Your task to perform on an android device: Open wifi settings Image 0: 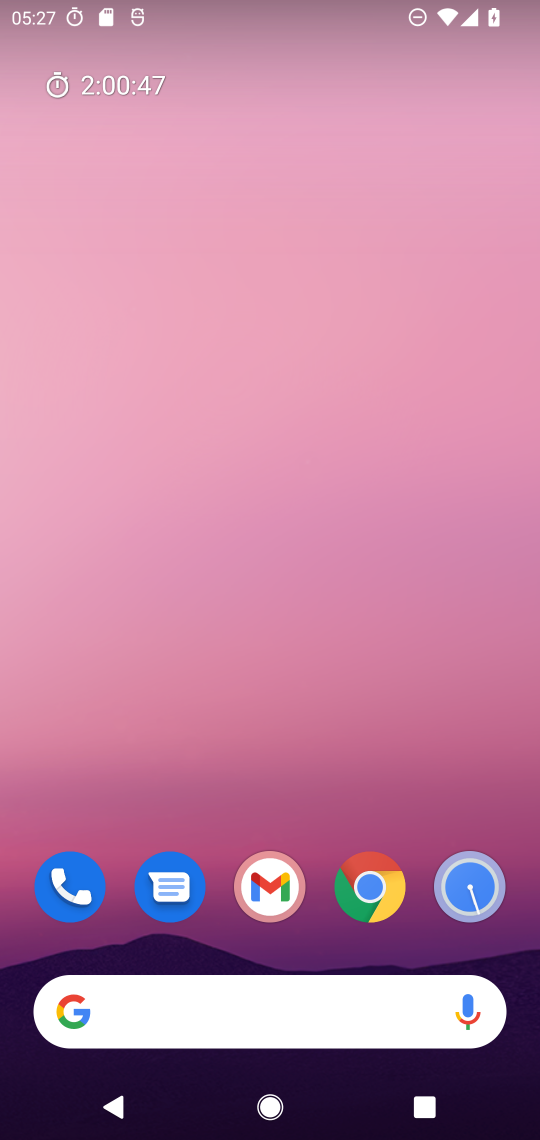
Step 0: press home button
Your task to perform on an android device: Open wifi settings Image 1: 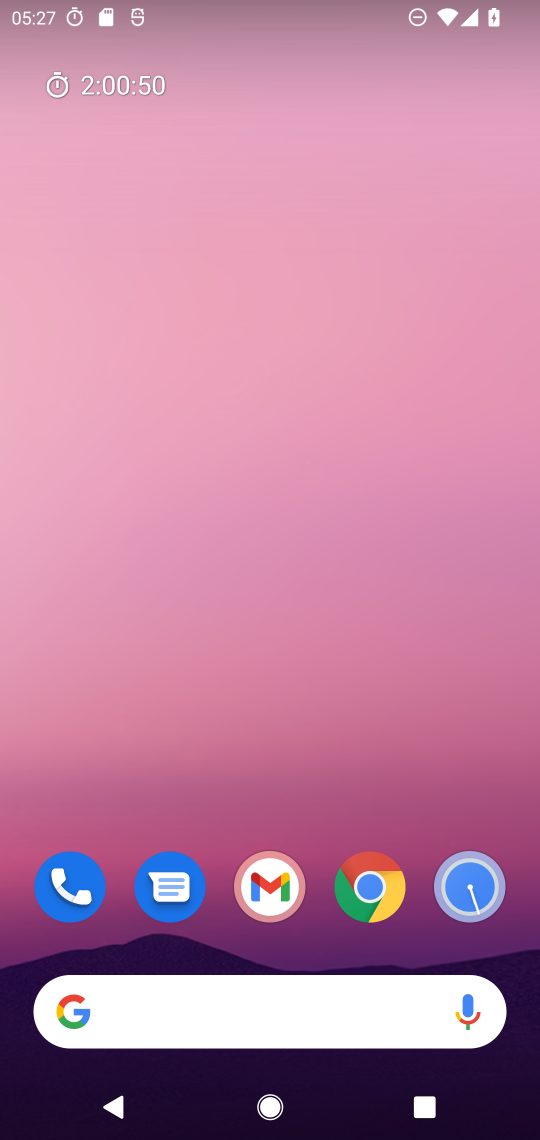
Step 1: drag from (414, 754) to (426, 228)
Your task to perform on an android device: Open wifi settings Image 2: 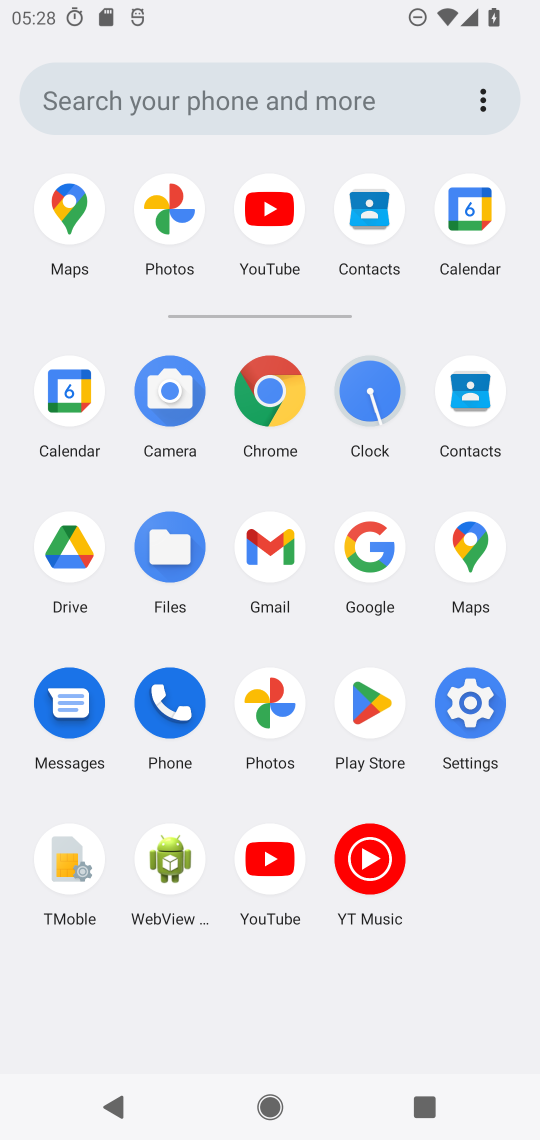
Step 2: click (466, 707)
Your task to perform on an android device: Open wifi settings Image 3: 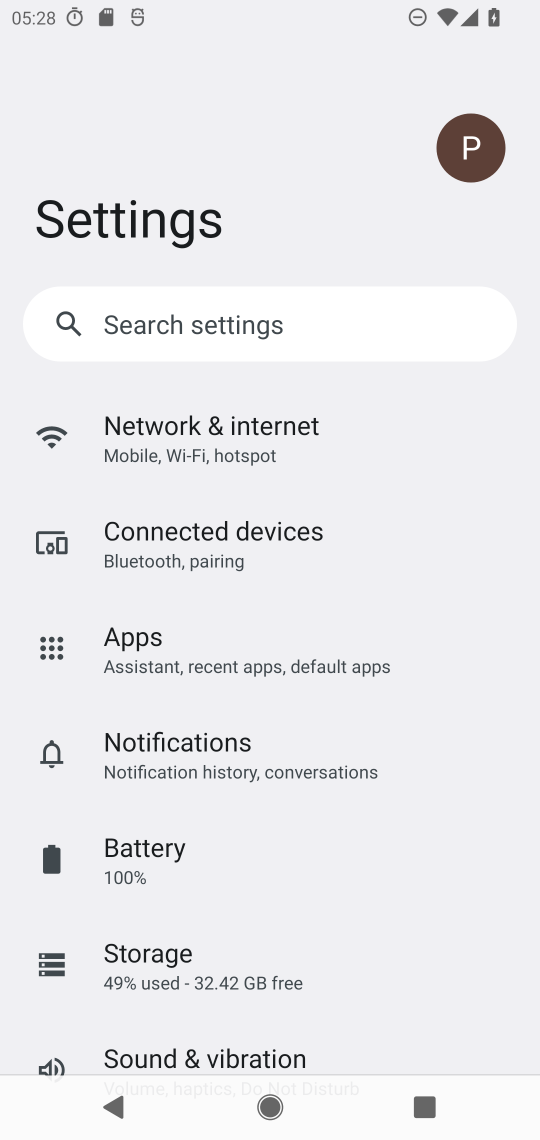
Step 3: drag from (442, 825) to (469, 644)
Your task to perform on an android device: Open wifi settings Image 4: 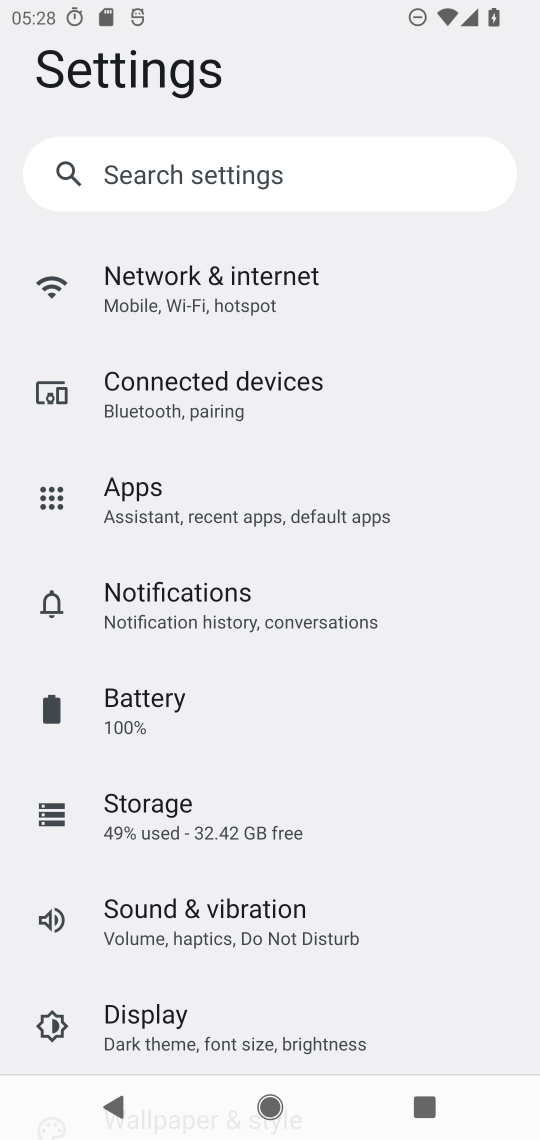
Step 4: drag from (436, 860) to (475, 631)
Your task to perform on an android device: Open wifi settings Image 5: 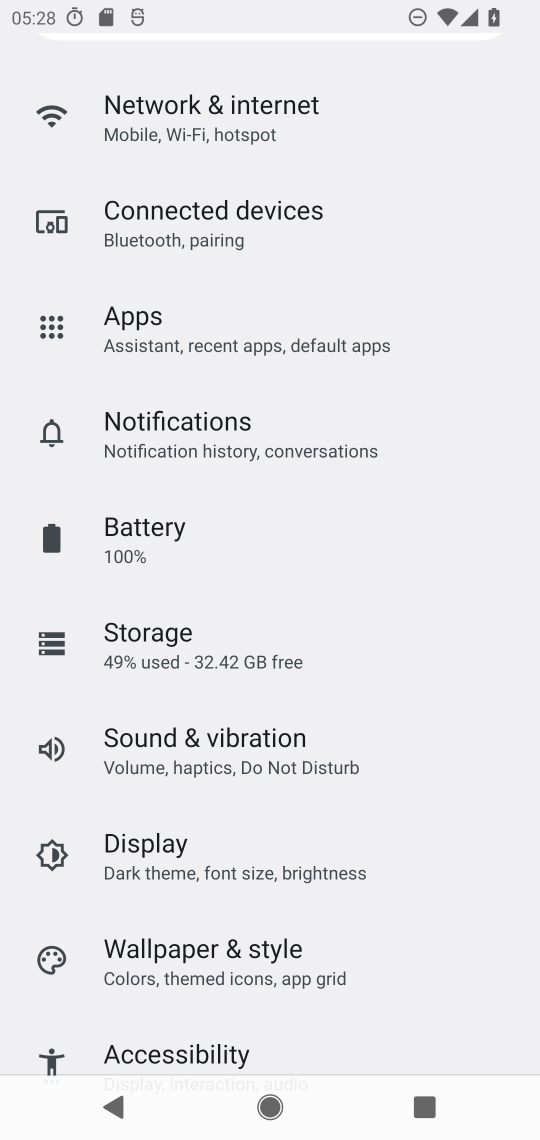
Step 5: drag from (451, 868) to (473, 628)
Your task to perform on an android device: Open wifi settings Image 6: 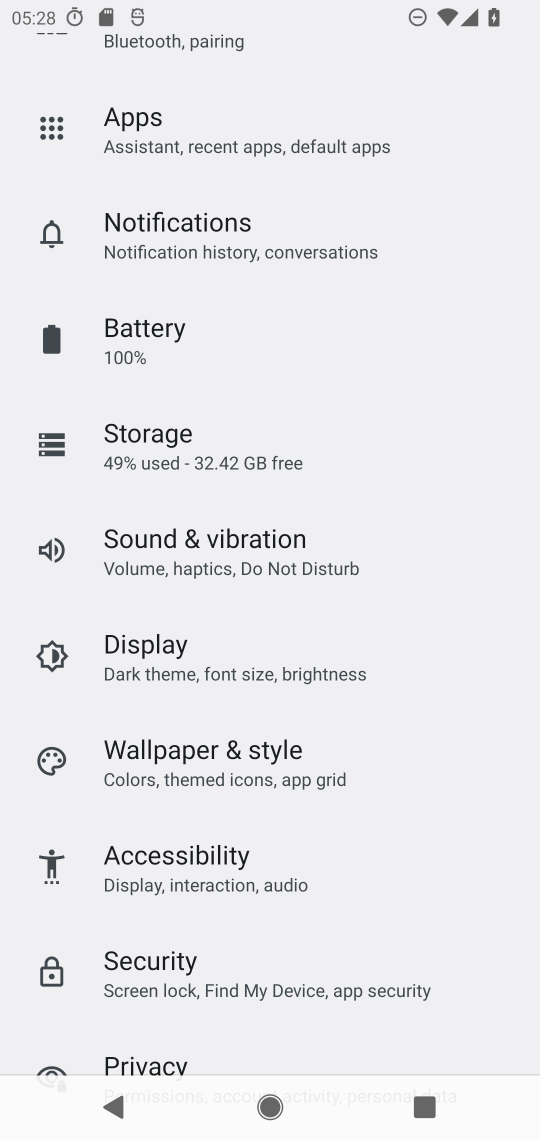
Step 6: drag from (439, 895) to (468, 680)
Your task to perform on an android device: Open wifi settings Image 7: 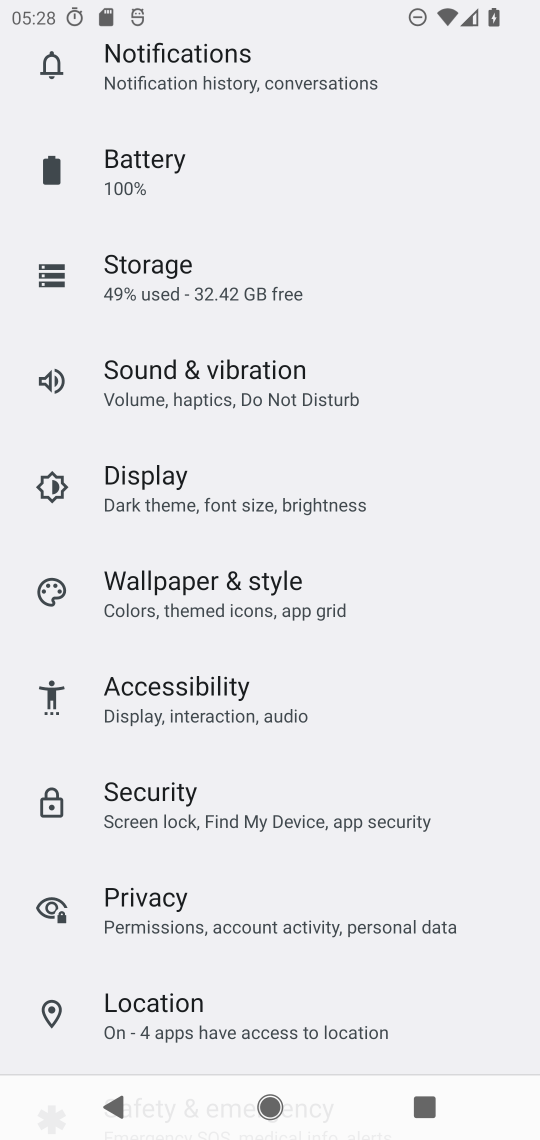
Step 7: drag from (452, 989) to (474, 726)
Your task to perform on an android device: Open wifi settings Image 8: 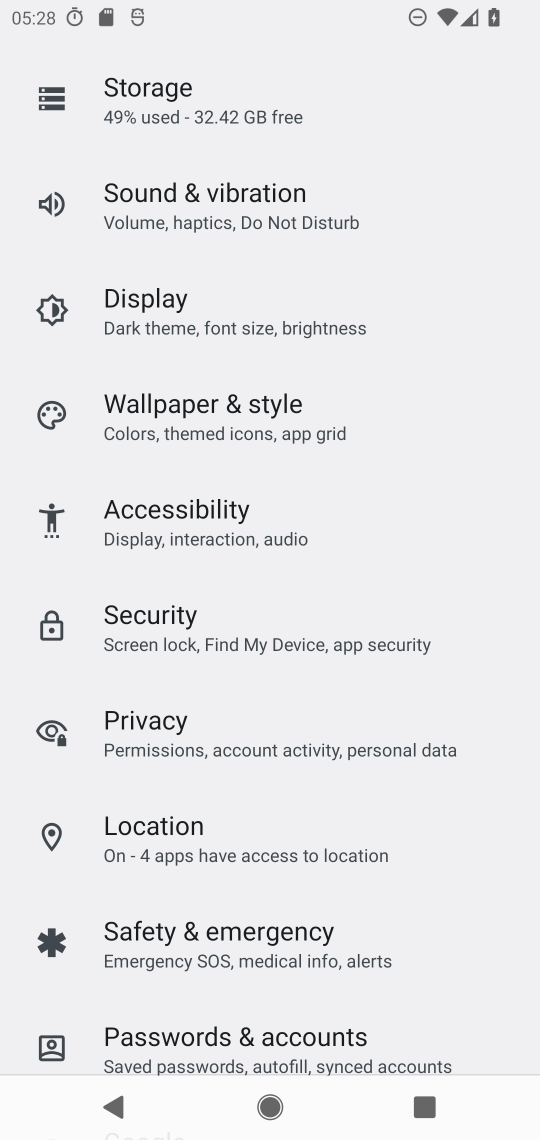
Step 8: drag from (449, 489) to (471, 698)
Your task to perform on an android device: Open wifi settings Image 9: 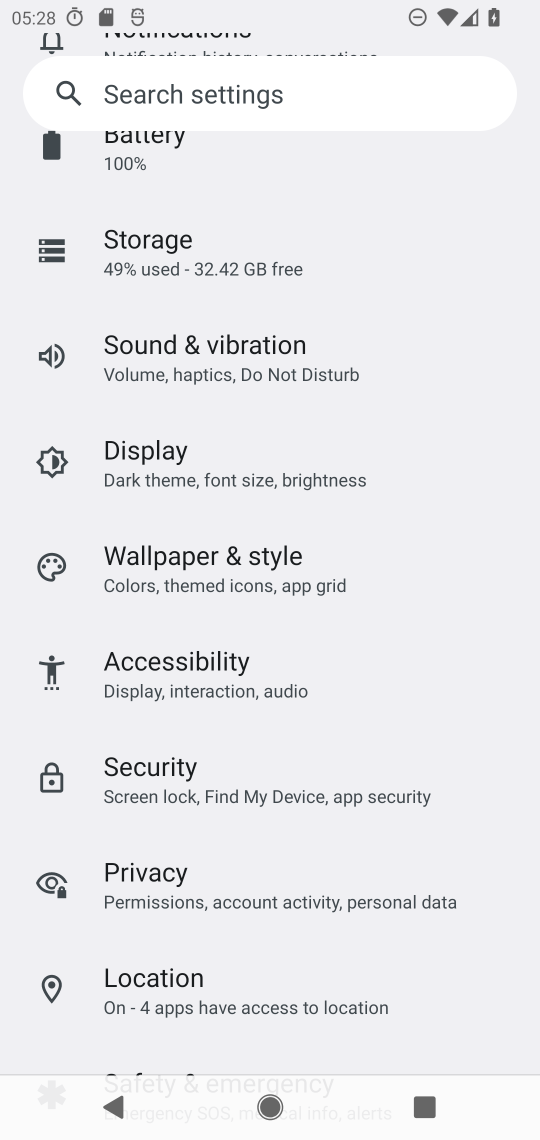
Step 9: drag from (439, 417) to (460, 665)
Your task to perform on an android device: Open wifi settings Image 10: 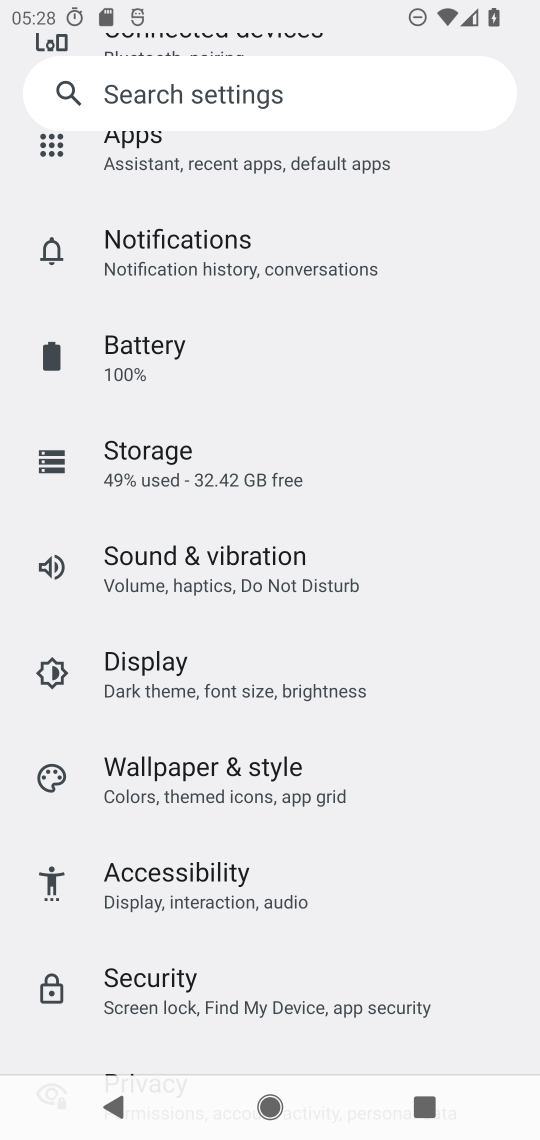
Step 10: drag from (452, 390) to (453, 667)
Your task to perform on an android device: Open wifi settings Image 11: 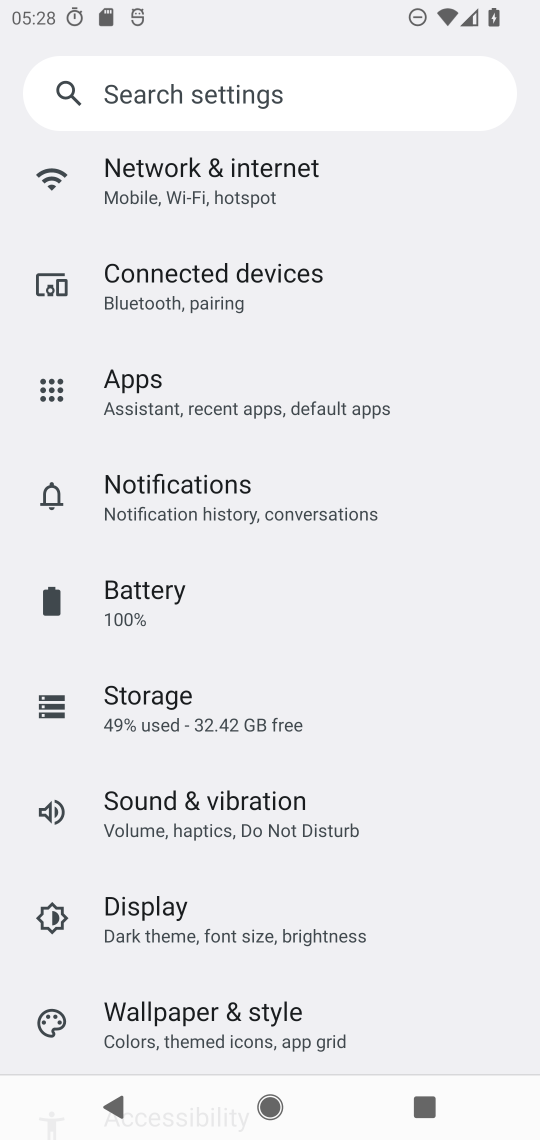
Step 11: drag from (447, 315) to (457, 590)
Your task to perform on an android device: Open wifi settings Image 12: 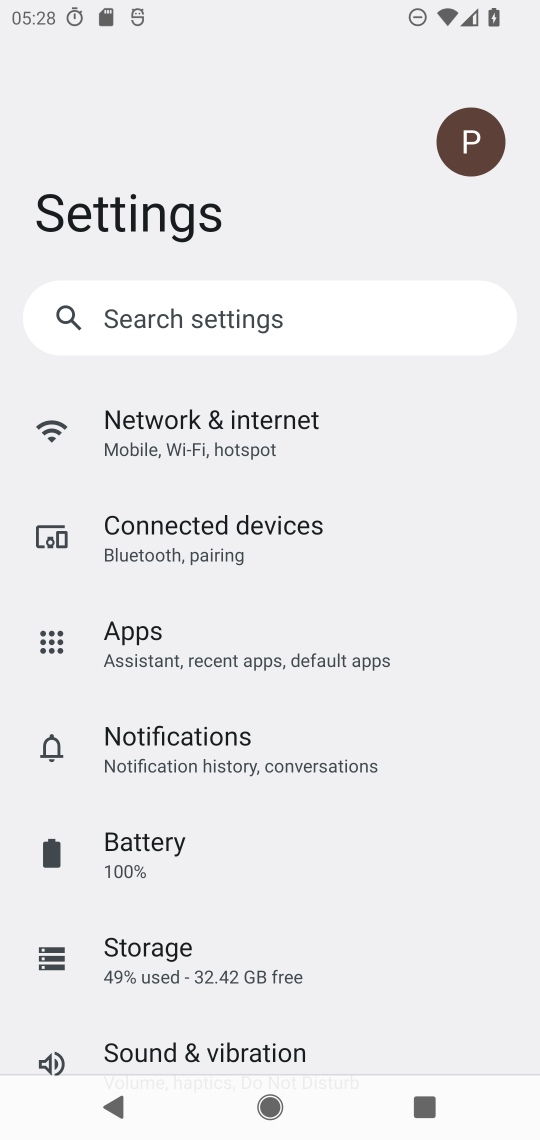
Step 12: drag from (416, 185) to (450, 545)
Your task to perform on an android device: Open wifi settings Image 13: 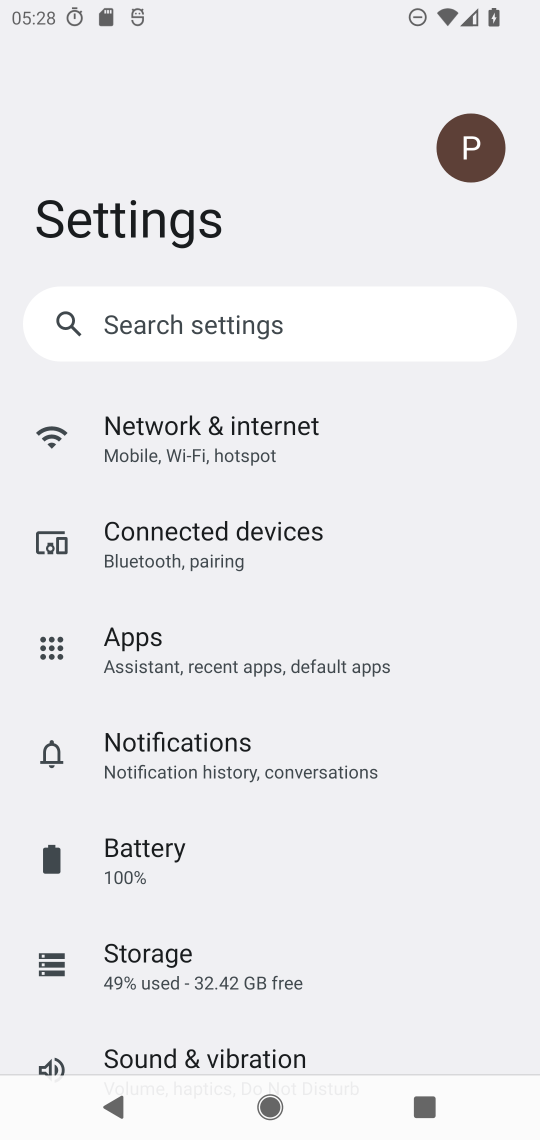
Step 13: click (294, 434)
Your task to perform on an android device: Open wifi settings Image 14: 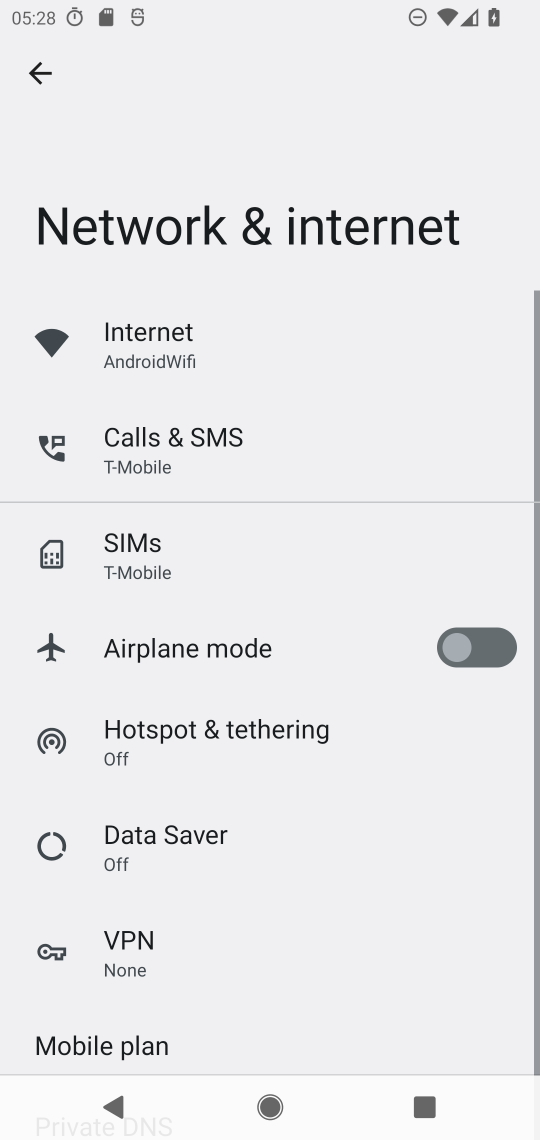
Step 14: click (217, 358)
Your task to perform on an android device: Open wifi settings Image 15: 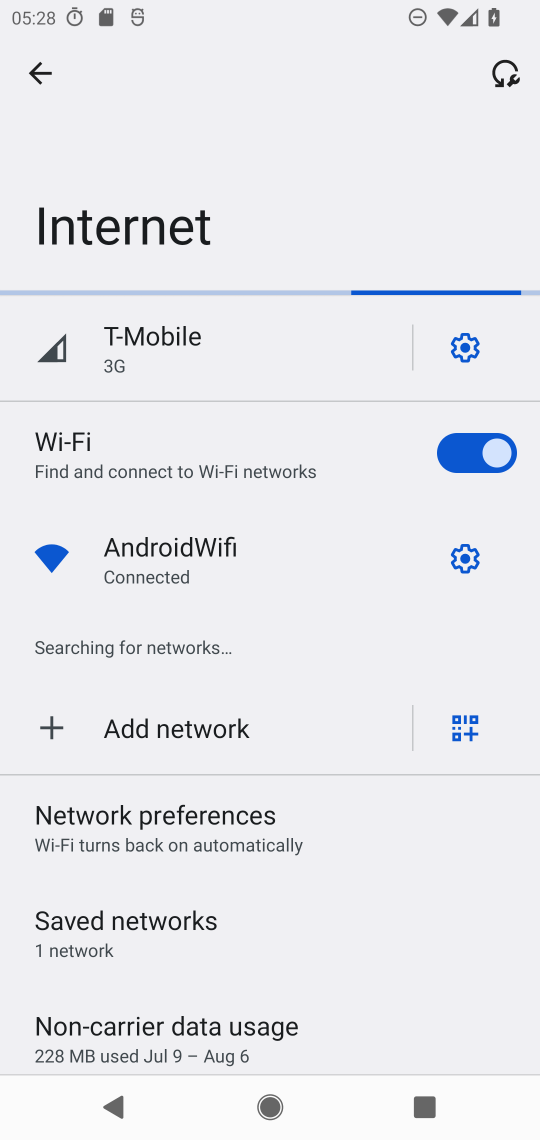
Step 15: task complete